Your task to perform on an android device: toggle airplane mode Image 0: 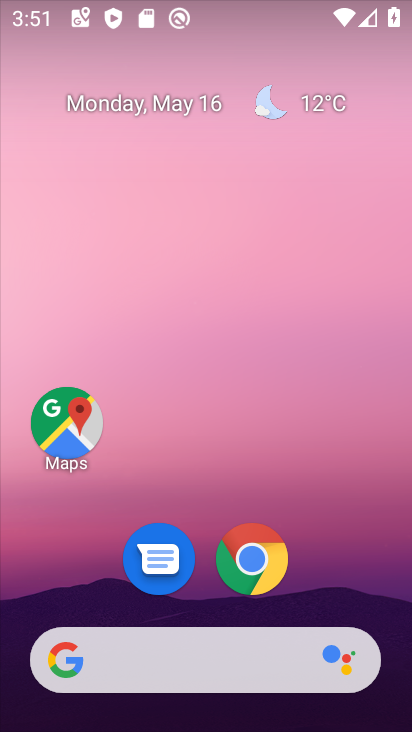
Step 0: drag from (348, 596) to (276, 190)
Your task to perform on an android device: toggle airplane mode Image 1: 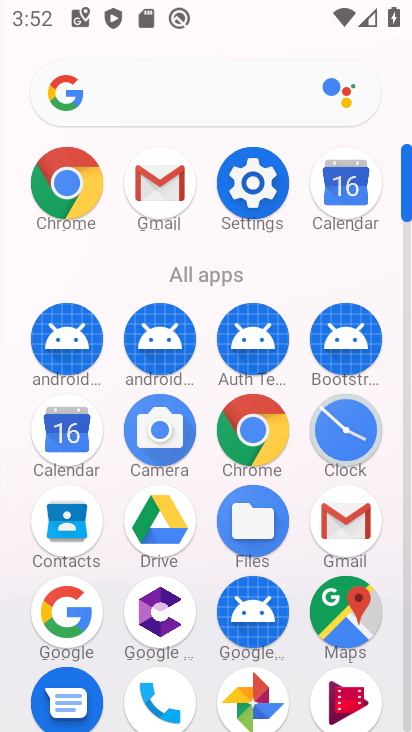
Step 1: click (244, 197)
Your task to perform on an android device: toggle airplane mode Image 2: 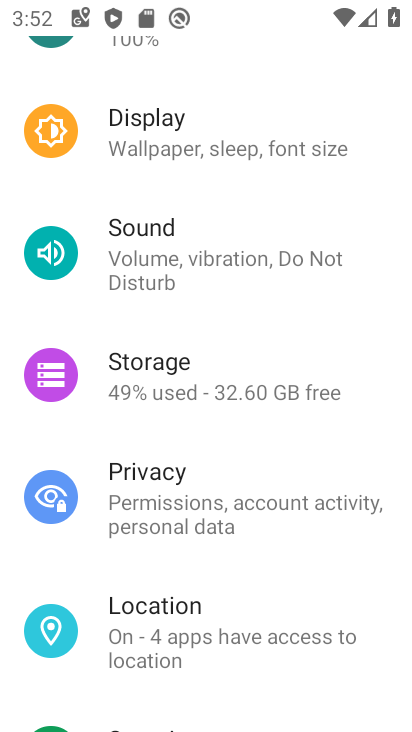
Step 2: drag from (244, 197) to (263, 507)
Your task to perform on an android device: toggle airplane mode Image 3: 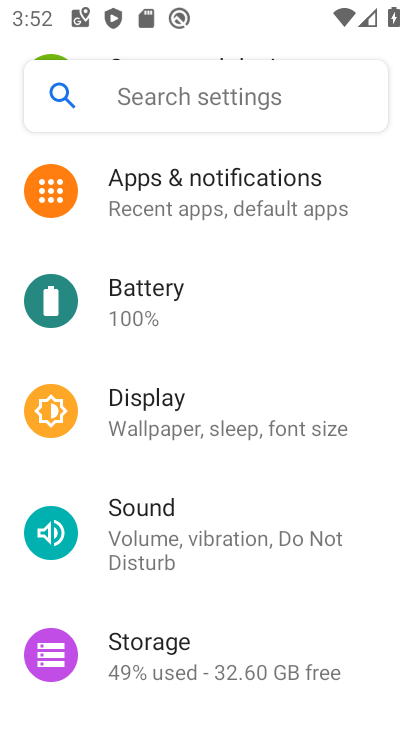
Step 3: drag from (237, 274) to (257, 561)
Your task to perform on an android device: toggle airplane mode Image 4: 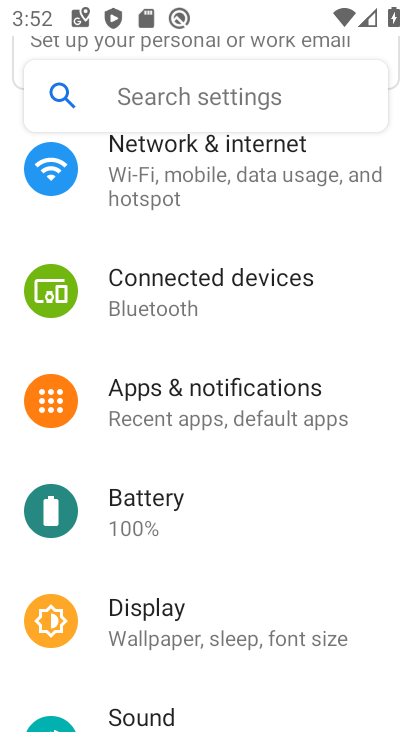
Step 4: click (215, 179)
Your task to perform on an android device: toggle airplane mode Image 5: 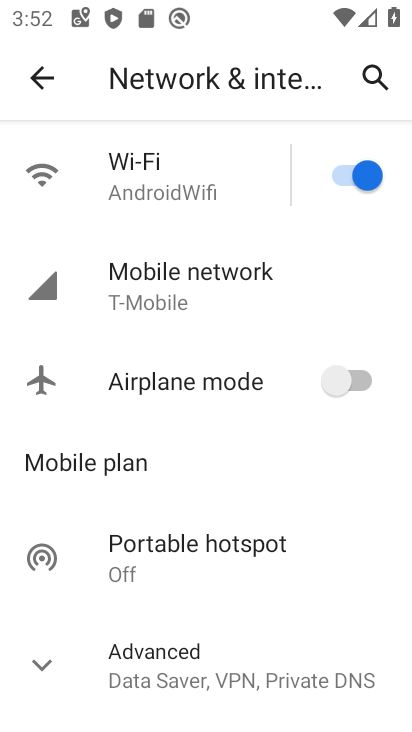
Step 5: click (290, 384)
Your task to perform on an android device: toggle airplane mode Image 6: 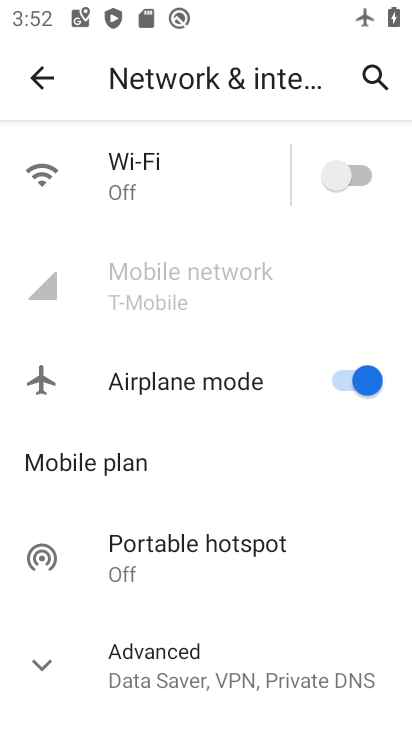
Step 6: task complete